Your task to perform on an android device: find snoozed emails in the gmail app Image 0: 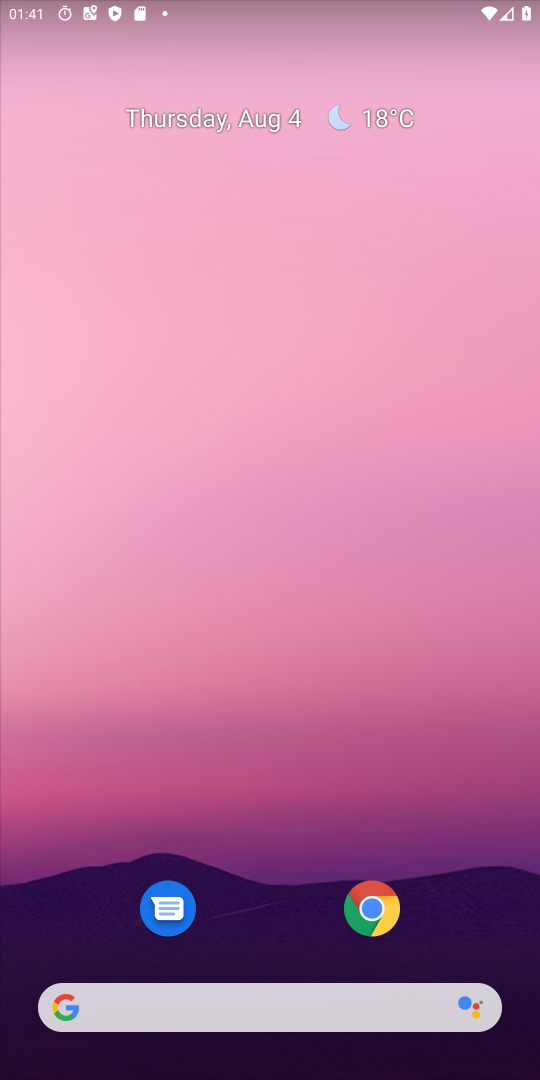
Step 0: press home button
Your task to perform on an android device: find snoozed emails in the gmail app Image 1: 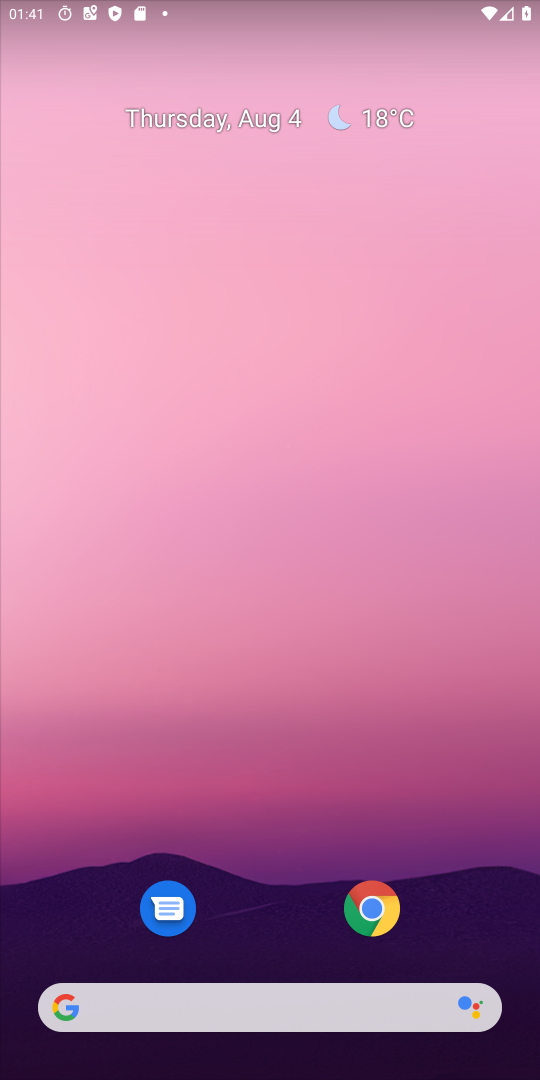
Step 1: drag from (296, 992) to (151, 262)
Your task to perform on an android device: find snoozed emails in the gmail app Image 2: 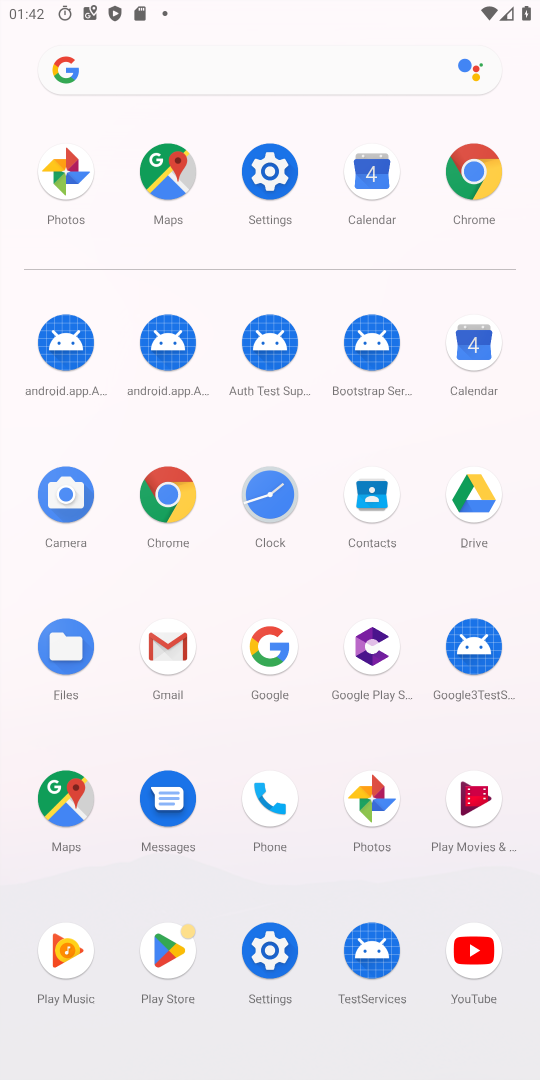
Step 2: click (177, 642)
Your task to perform on an android device: find snoozed emails in the gmail app Image 3: 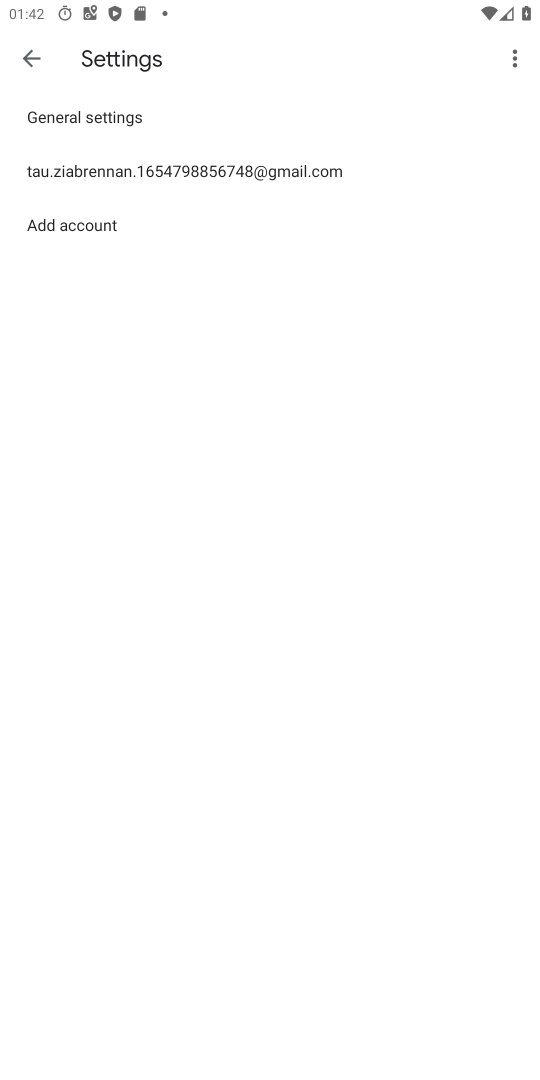
Step 3: click (45, 62)
Your task to perform on an android device: find snoozed emails in the gmail app Image 4: 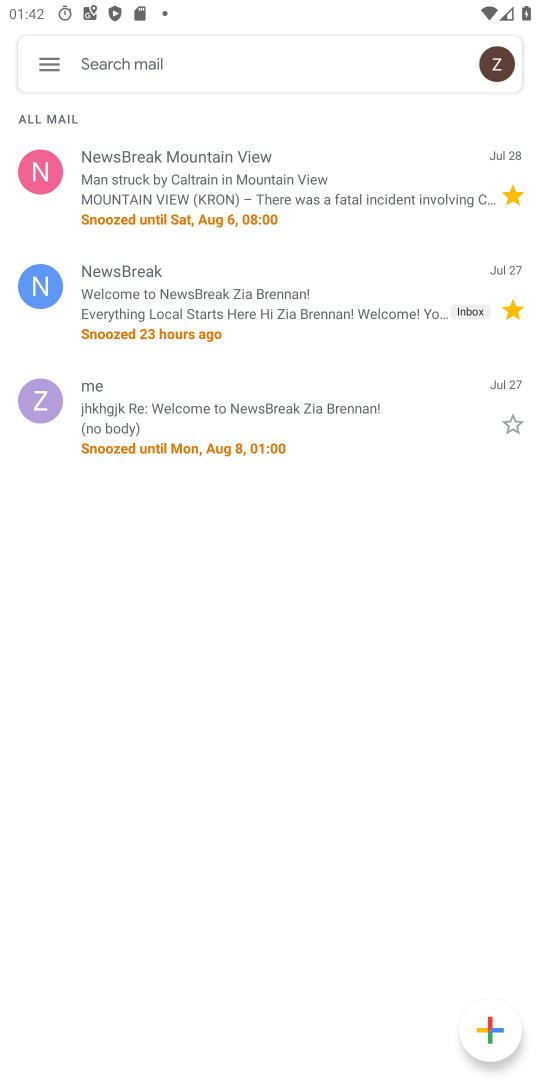
Step 4: click (45, 60)
Your task to perform on an android device: find snoozed emails in the gmail app Image 5: 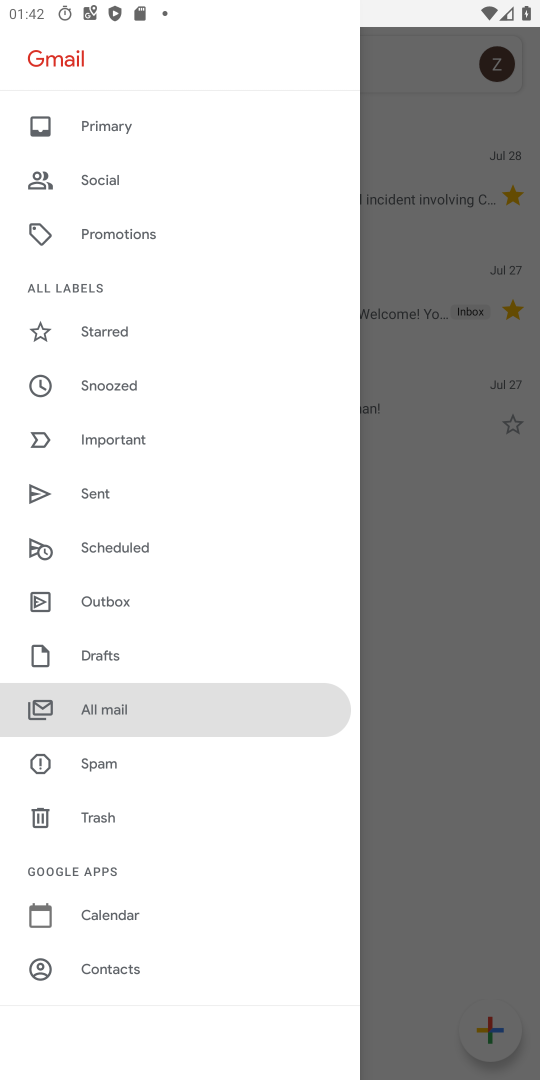
Step 5: click (105, 388)
Your task to perform on an android device: find snoozed emails in the gmail app Image 6: 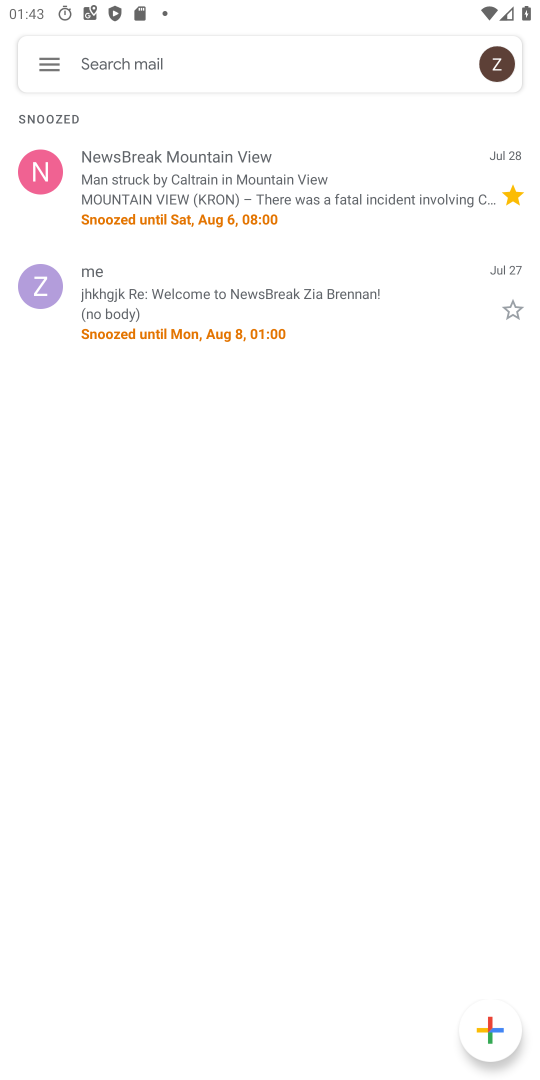
Step 6: task complete